Your task to perform on an android device: Open Google Image 0: 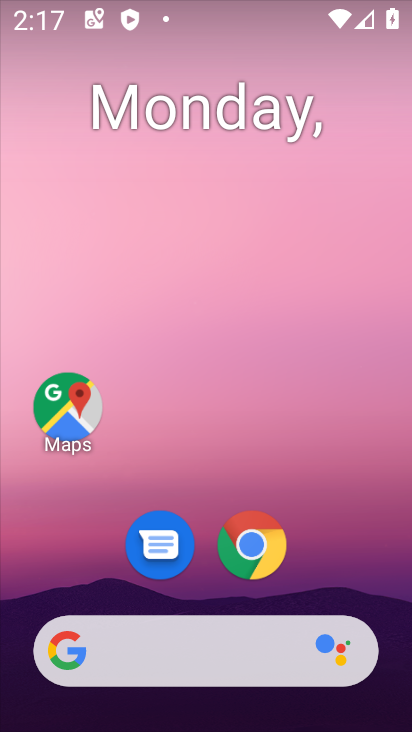
Step 0: drag from (217, 520) to (240, 4)
Your task to perform on an android device: Open Google Image 1: 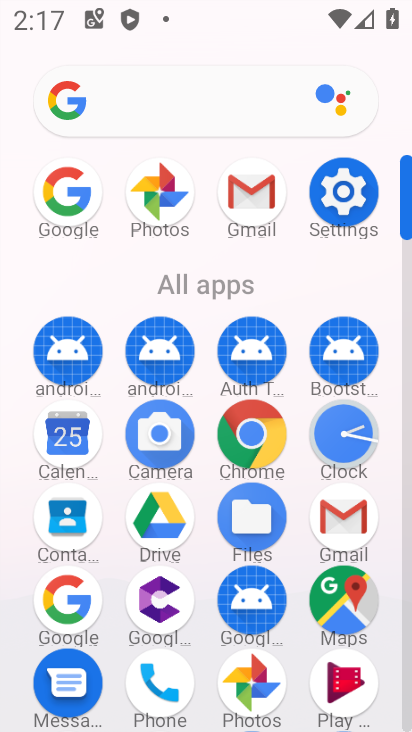
Step 1: click (63, 199)
Your task to perform on an android device: Open Google Image 2: 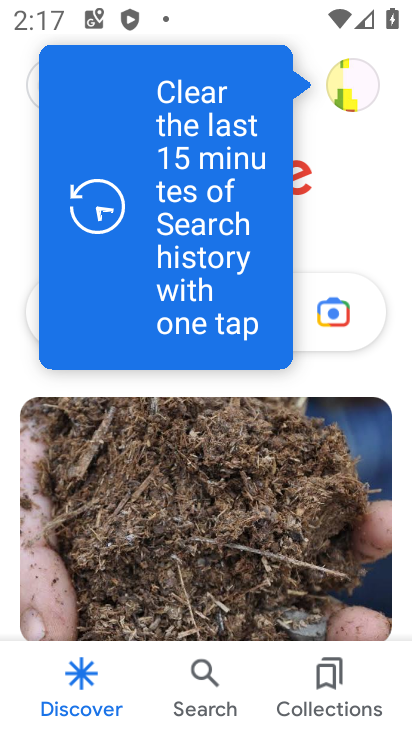
Step 2: task complete